Your task to perform on an android device: see sites visited before in the chrome app Image 0: 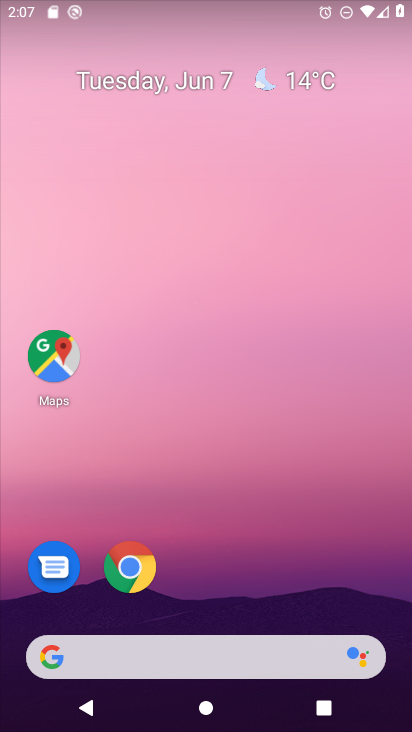
Step 0: drag from (249, 573) to (246, 16)
Your task to perform on an android device: see sites visited before in the chrome app Image 1: 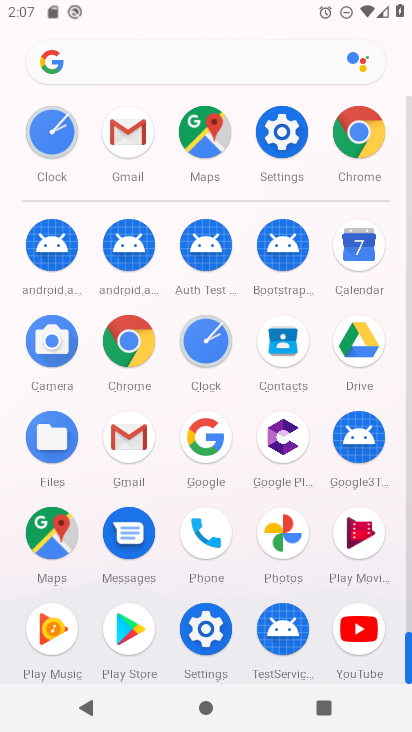
Step 1: click (364, 157)
Your task to perform on an android device: see sites visited before in the chrome app Image 2: 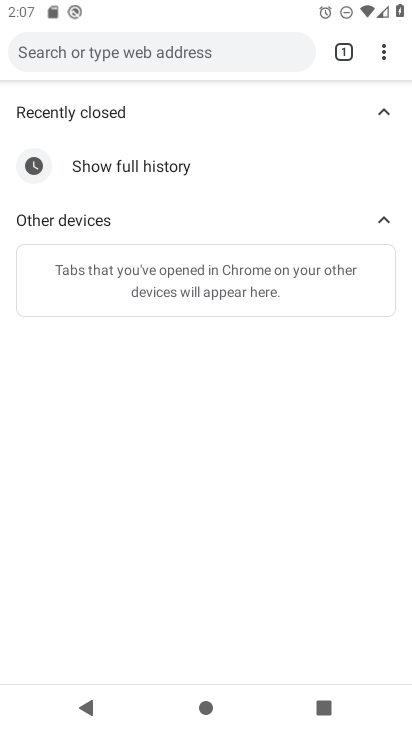
Step 2: task complete